Your task to perform on an android device: What's the weather today? Image 0: 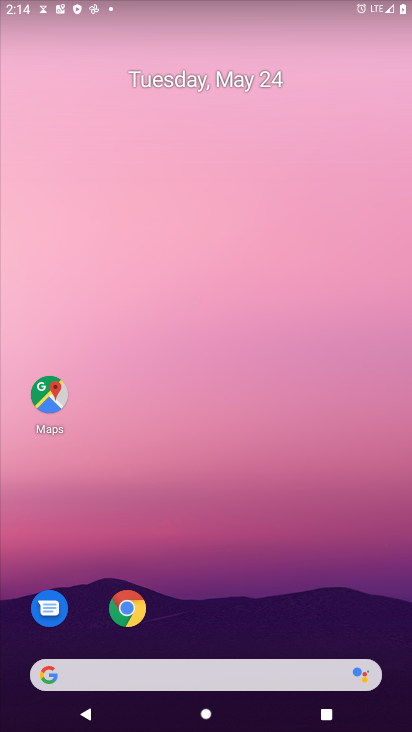
Step 0: drag from (365, 683) to (314, 124)
Your task to perform on an android device: What's the weather today? Image 1: 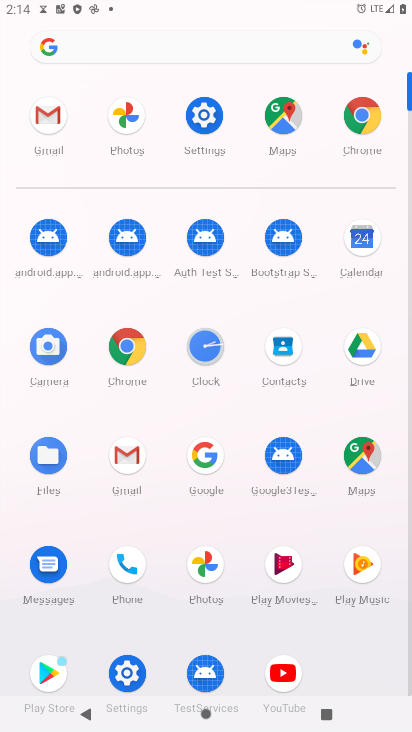
Step 1: click (123, 44)
Your task to perform on an android device: What's the weather today? Image 2: 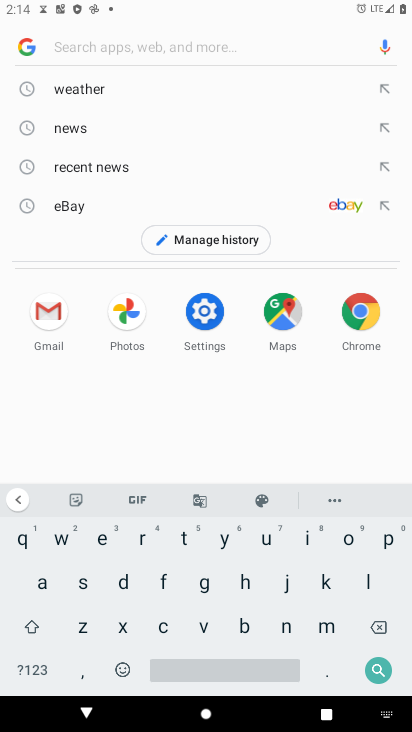
Step 2: click (102, 98)
Your task to perform on an android device: What's the weather today? Image 3: 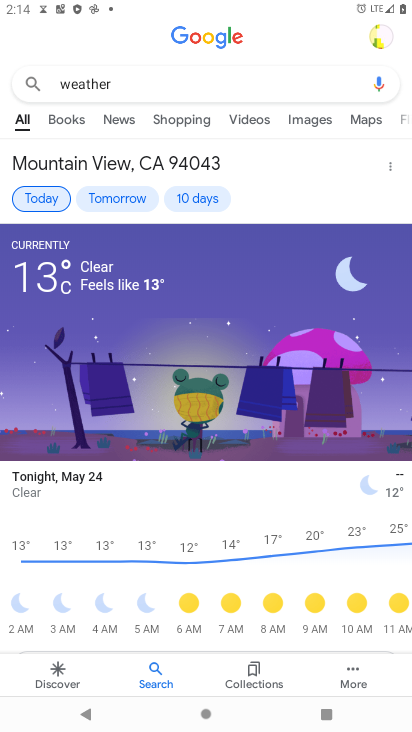
Step 3: task complete